Your task to perform on an android device: turn notification dots on Image 0: 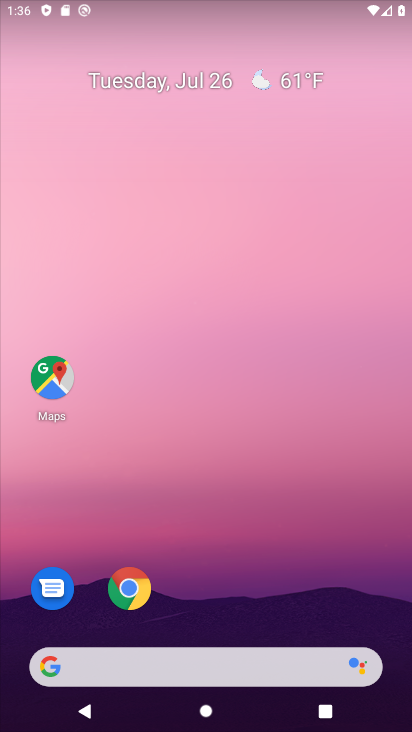
Step 0: drag from (189, 575) to (336, 16)
Your task to perform on an android device: turn notification dots on Image 1: 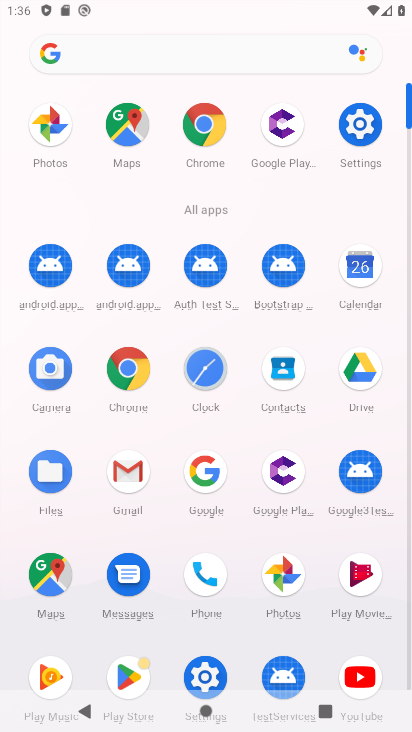
Step 1: click (369, 117)
Your task to perform on an android device: turn notification dots on Image 2: 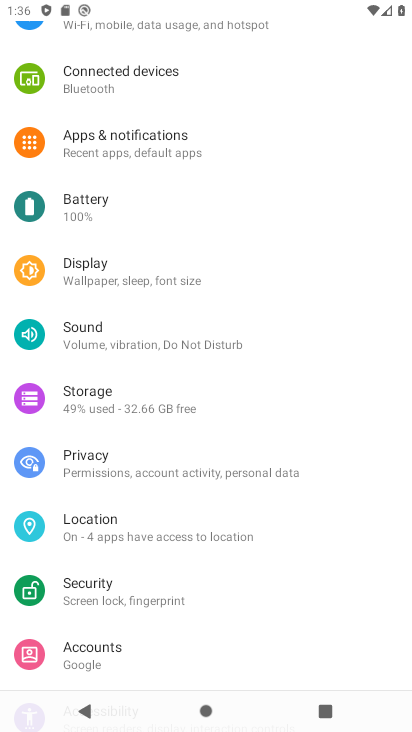
Step 2: click (157, 146)
Your task to perform on an android device: turn notification dots on Image 3: 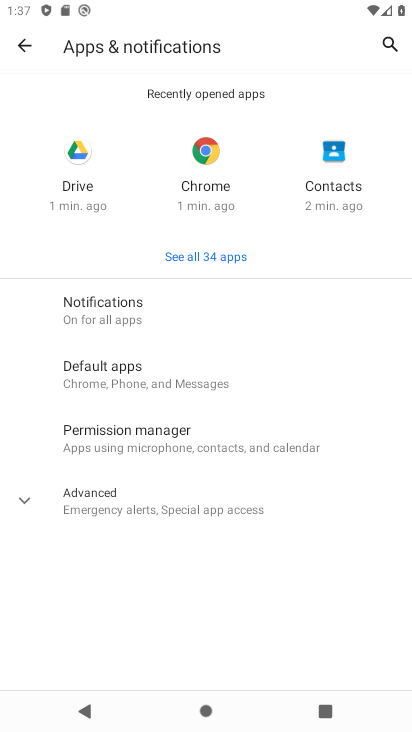
Step 3: click (88, 311)
Your task to perform on an android device: turn notification dots on Image 4: 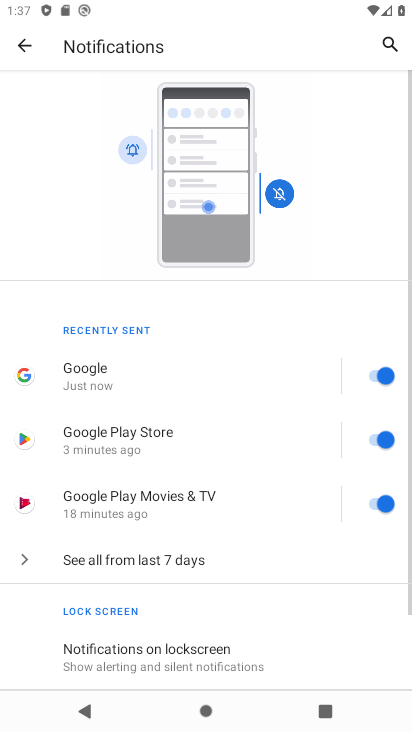
Step 4: drag from (147, 623) to (231, 189)
Your task to perform on an android device: turn notification dots on Image 5: 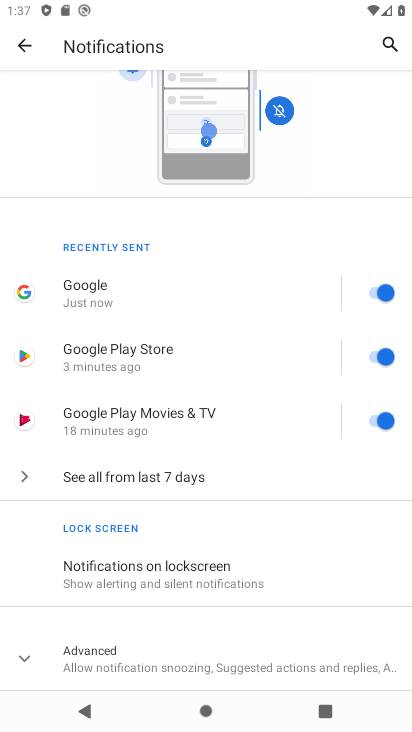
Step 5: click (87, 663)
Your task to perform on an android device: turn notification dots on Image 6: 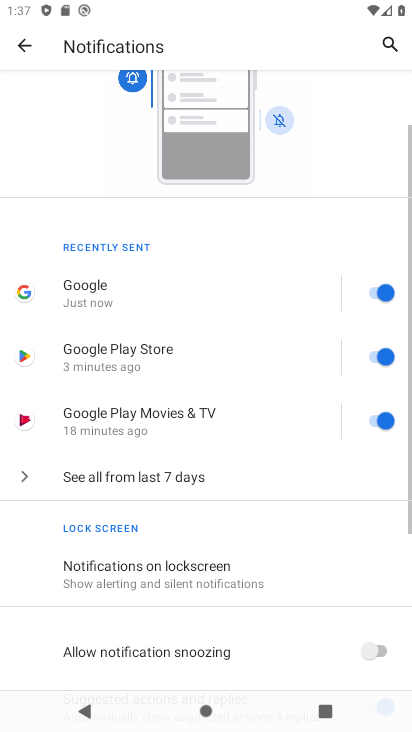
Step 6: task complete